Your task to perform on an android device: Search for seafood restaurants on Google Maps Image 0: 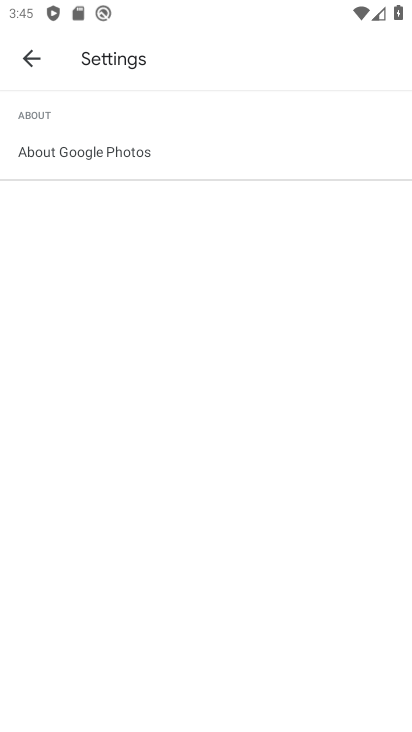
Step 0: press home button
Your task to perform on an android device: Search for seafood restaurants on Google Maps Image 1: 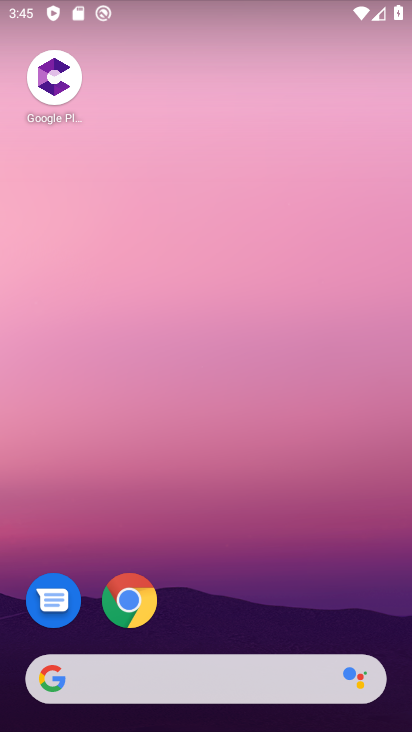
Step 1: click (222, 84)
Your task to perform on an android device: Search for seafood restaurants on Google Maps Image 2: 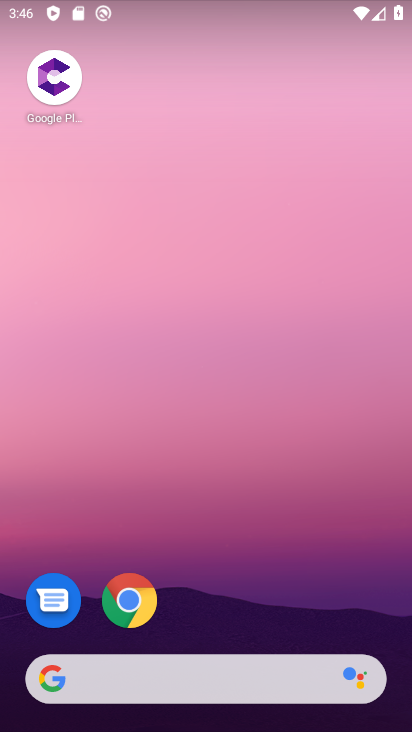
Step 2: drag from (200, 577) to (271, 1)
Your task to perform on an android device: Search for seafood restaurants on Google Maps Image 3: 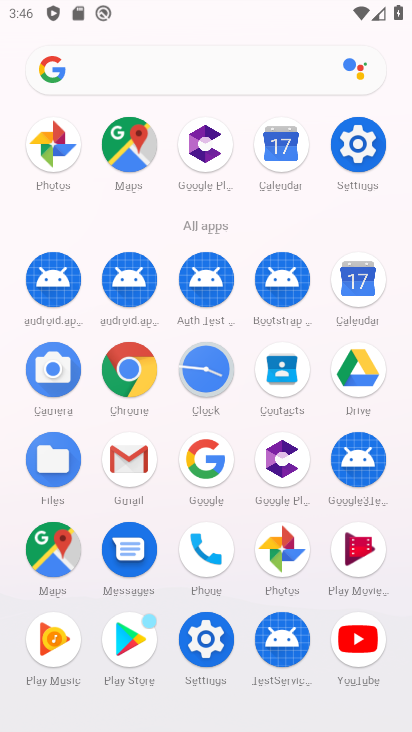
Step 3: click (64, 545)
Your task to perform on an android device: Search for seafood restaurants on Google Maps Image 4: 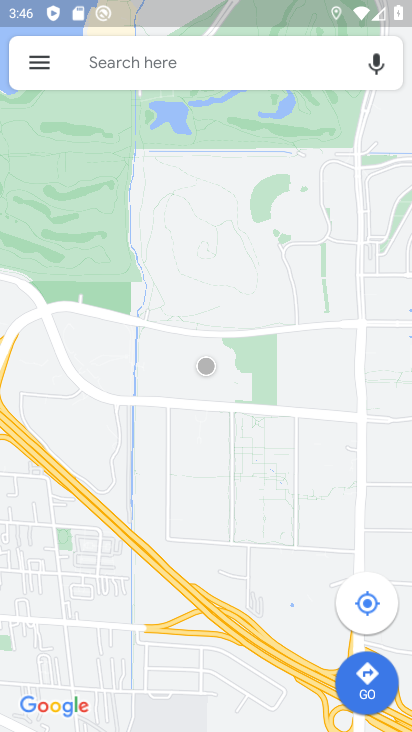
Step 4: click (164, 70)
Your task to perform on an android device: Search for seafood restaurants on Google Maps Image 5: 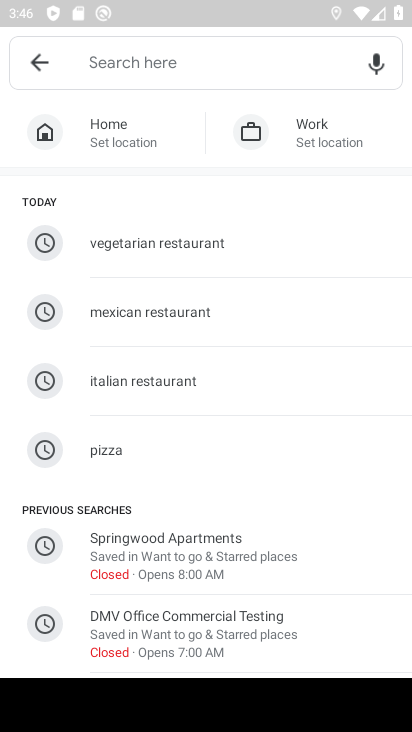
Step 5: type "seafood restaurants"
Your task to perform on an android device: Search for seafood restaurants on Google Maps Image 6: 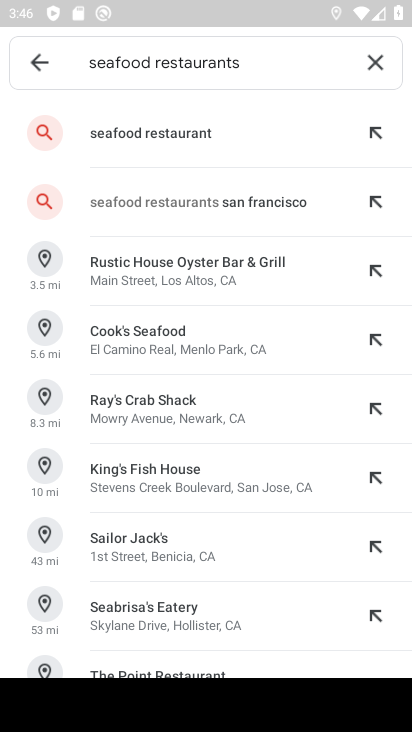
Step 6: click (222, 142)
Your task to perform on an android device: Search for seafood restaurants on Google Maps Image 7: 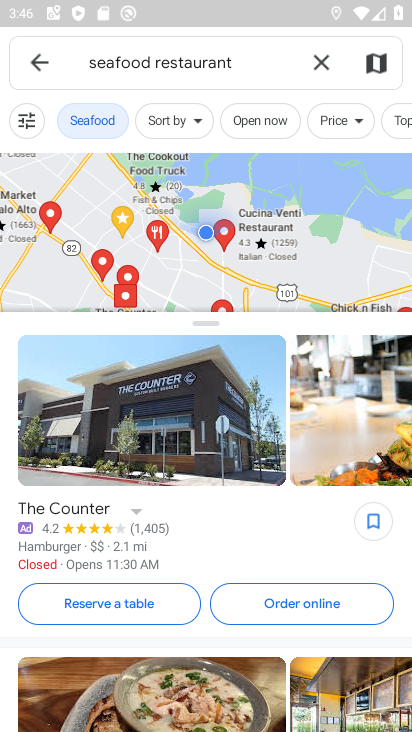
Step 7: task complete